Your task to perform on an android device: toggle javascript in the chrome app Image 0: 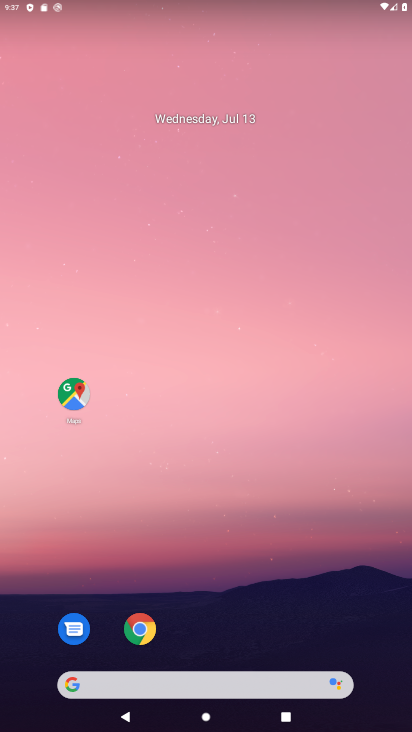
Step 0: drag from (213, 554) to (250, 371)
Your task to perform on an android device: toggle javascript in the chrome app Image 1: 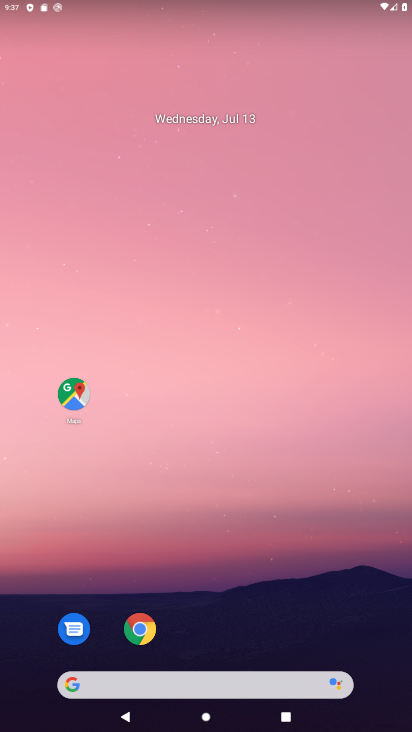
Step 1: click (135, 623)
Your task to perform on an android device: toggle javascript in the chrome app Image 2: 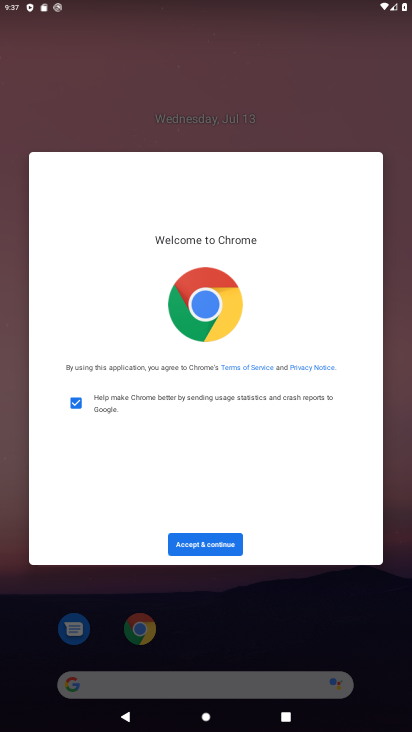
Step 2: click (194, 542)
Your task to perform on an android device: toggle javascript in the chrome app Image 3: 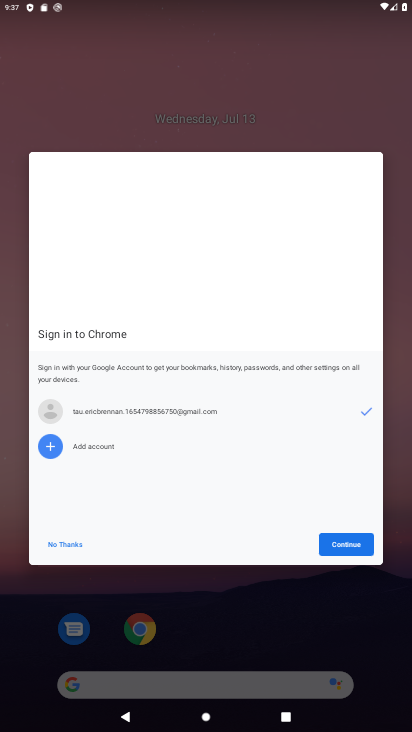
Step 3: click (355, 546)
Your task to perform on an android device: toggle javascript in the chrome app Image 4: 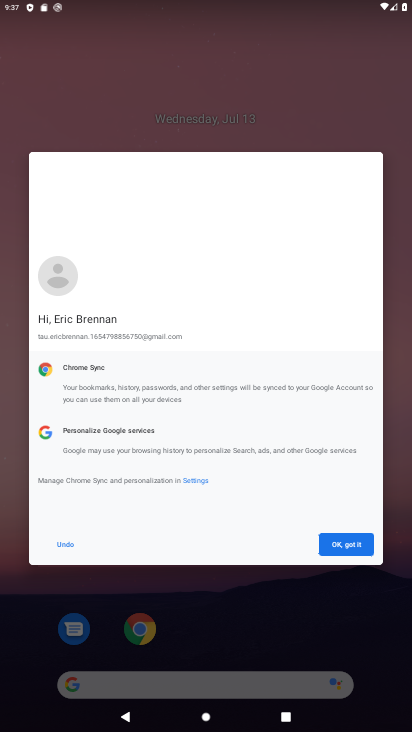
Step 4: click (355, 546)
Your task to perform on an android device: toggle javascript in the chrome app Image 5: 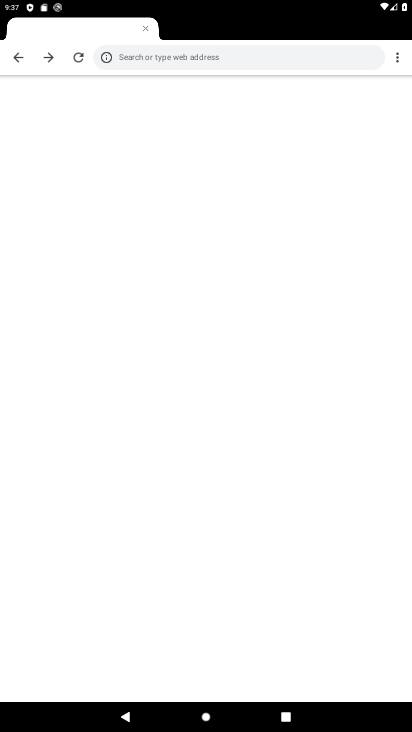
Step 5: click (395, 42)
Your task to perform on an android device: toggle javascript in the chrome app Image 6: 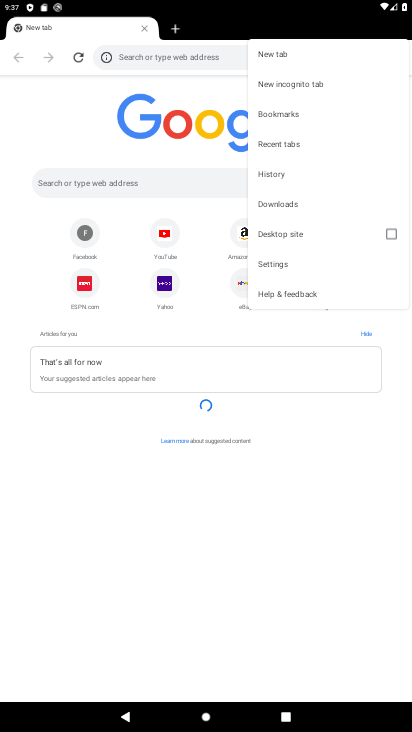
Step 6: click (290, 264)
Your task to perform on an android device: toggle javascript in the chrome app Image 7: 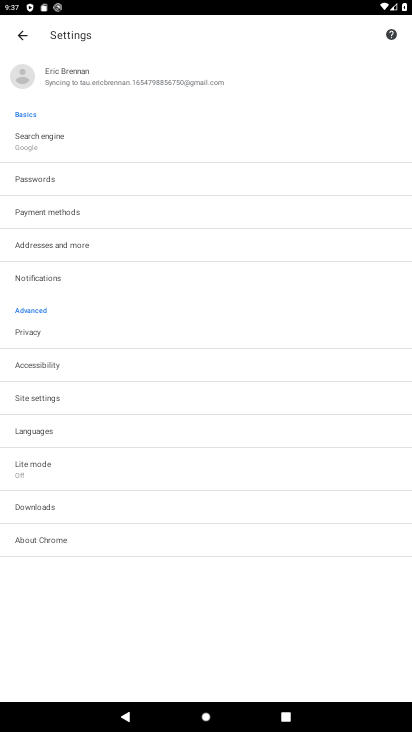
Step 7: click (100, 395)
Your task to perform on an android device: toggle javascript in the chrome app Image 8: 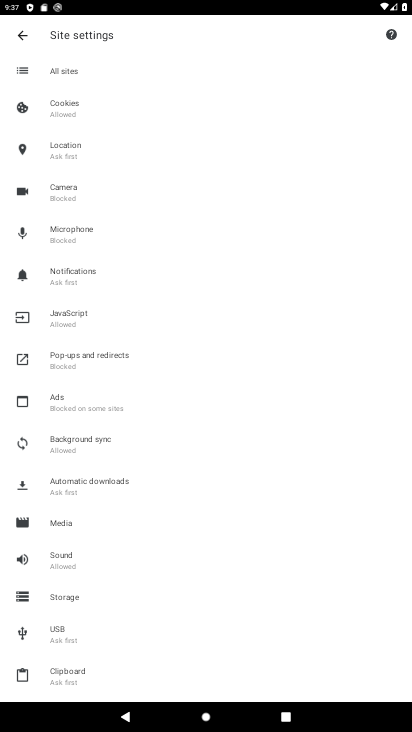
Step 8: click (75, 314)
Your task to perform on an android device: toggle javascript in the chrome app Image 9: 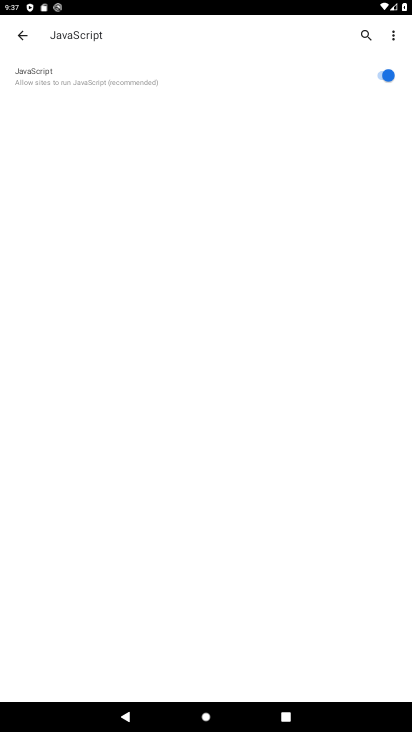
Step 9: click (388, 67)
Your task to perform on an android device: toggle javascript in the chrome app Image 10: 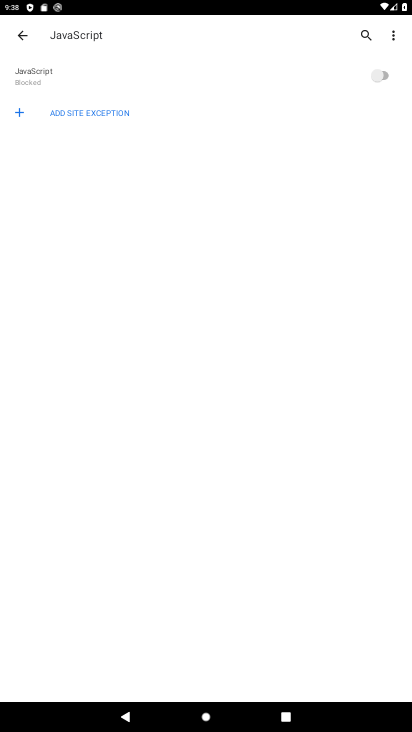
Step 10: task complete